Your task to perform on an android device: Open Android settings Image 0: 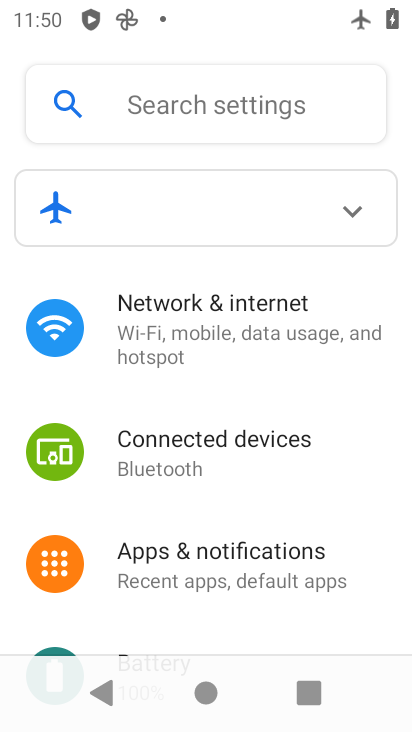
Step 0: drag from (269, 388) to (269, 348)
Your task to perform on an android device: Open Android settings Image 1: 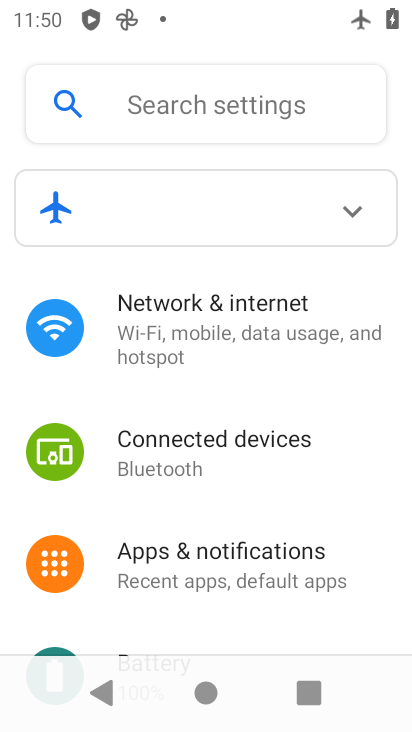
Step 1: drag from (190, 542) to (209, 176)
Your task to perform on an android device: Open Android settings Image 2: 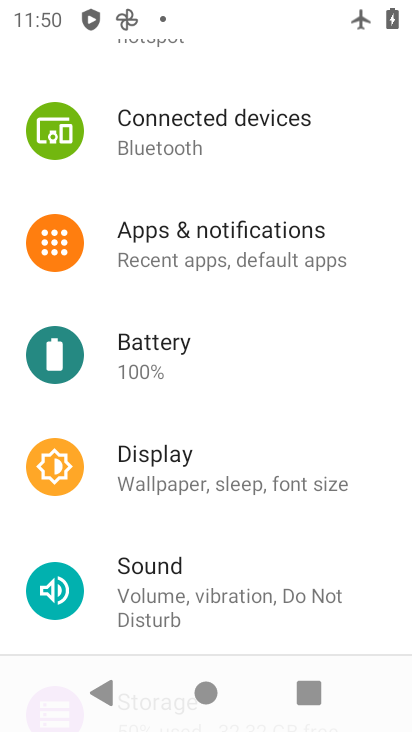
Step 2: drag from (231, 463) to (263, 234)
Your task to perform on an android device: Open Android settings Image 3: 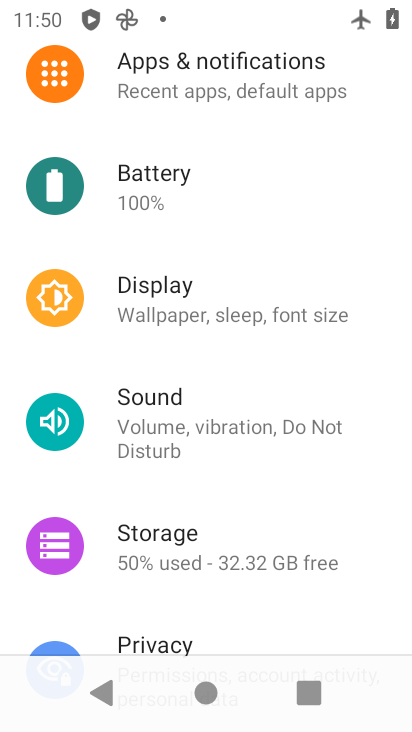
Step 3: drag from (256, 439) to (285, 188)
Your task to perform on an android device: Open Android settings Image 4: 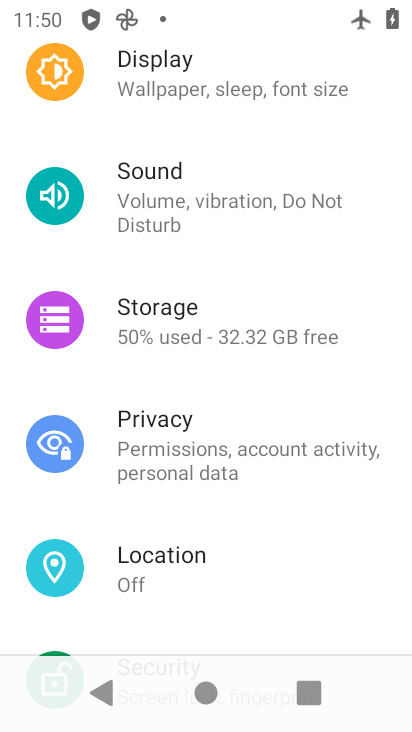
Step 4: drag from (224, 541) to (261, 257)
Your task to perform on an android device: Open Android settings Image 5: 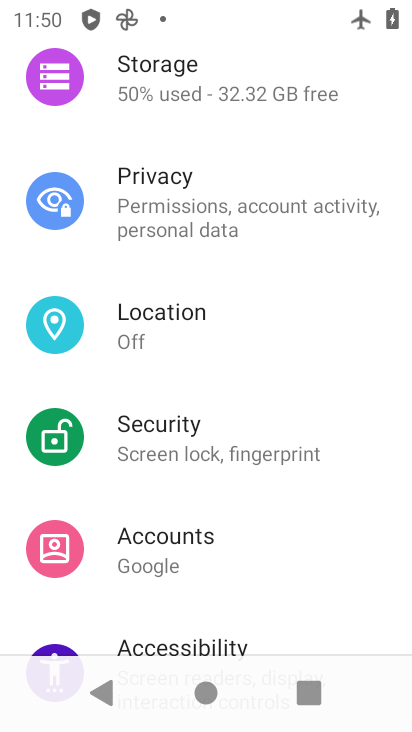
Step 5: drag from (259, 525) to (290, 266)
Your task to perform on an android device: Open Android settings Image 6: 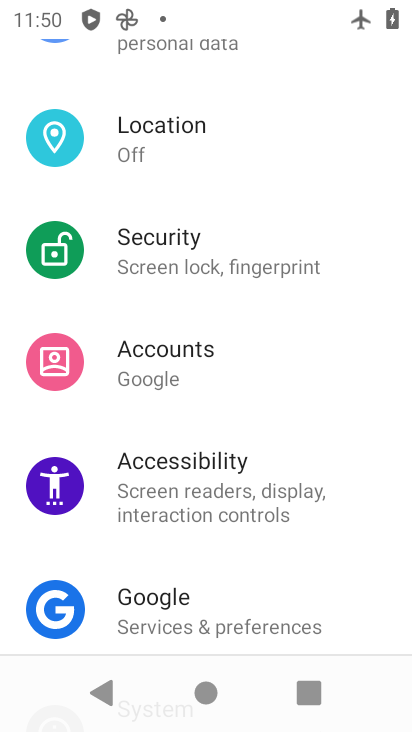
Step 6: drag from (215, 578) to (282, 214)
Your task to perform on an android device: Open Android settings Image 7: 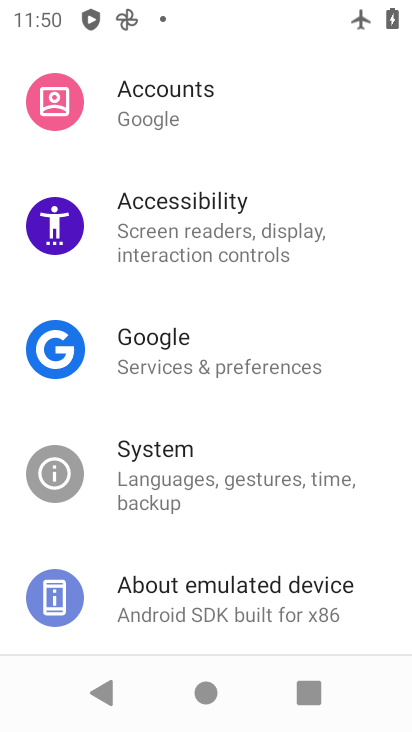
Step 7: click (201, 598)
Your task to perform on an android device: Open Android settings Image 8: 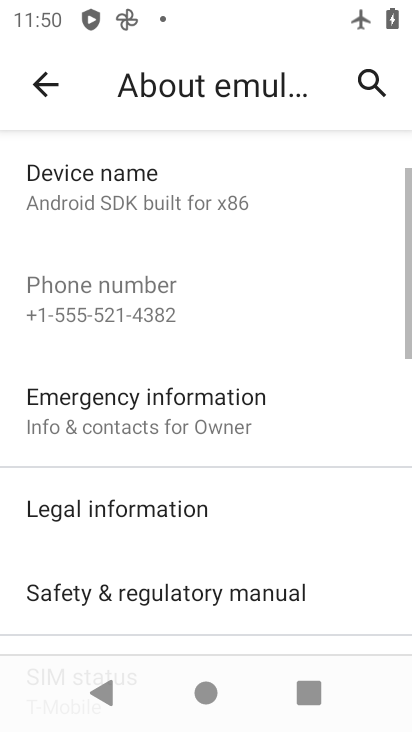
Step 8: drag from (248, 429) to (317, 128)
Your task to perform on an android device: Open Android settings Image 9: 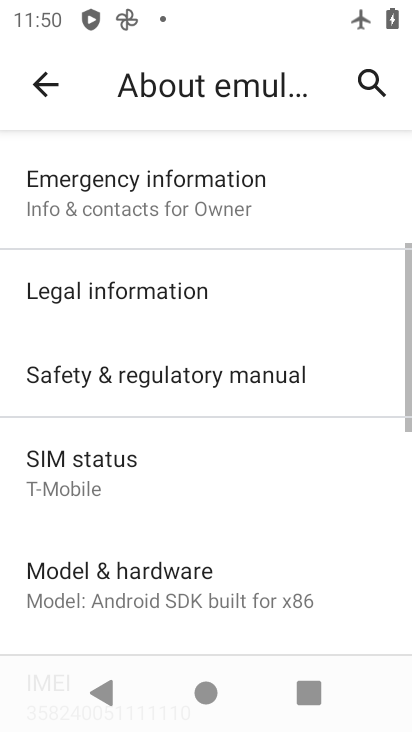
Step 9: drag from (226, 561) to (281, 330)
Your task to perform on an android device: Open Android settings Image 10: 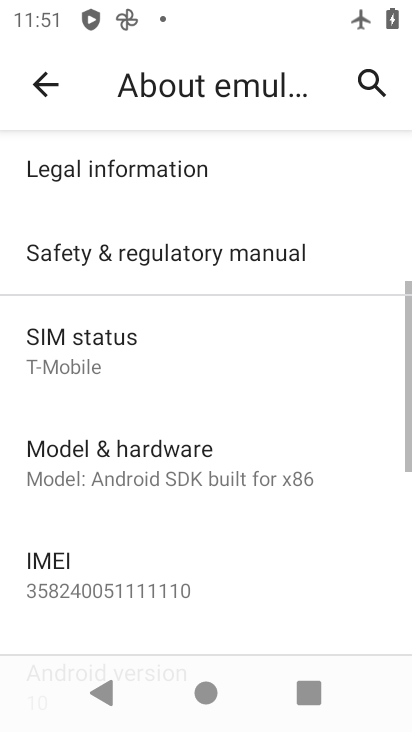
Step 10: drag from (218, 563) to (272, 352)
Your task to perform on an android device: Open Android settings Image 11: 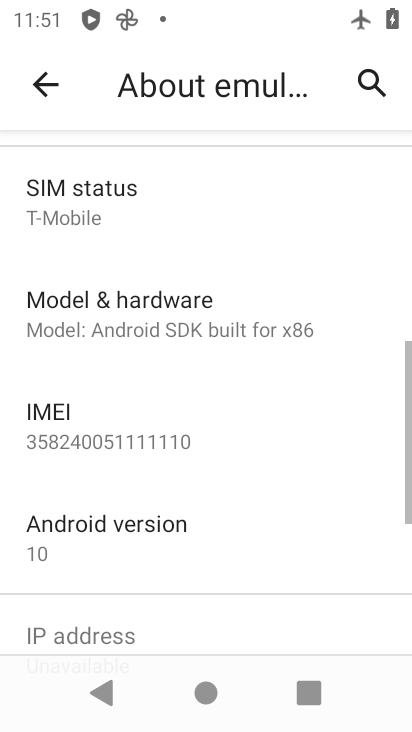
Step 11: click (185, 552)
Your task to perform on an android device: Open Android settings Image 12: 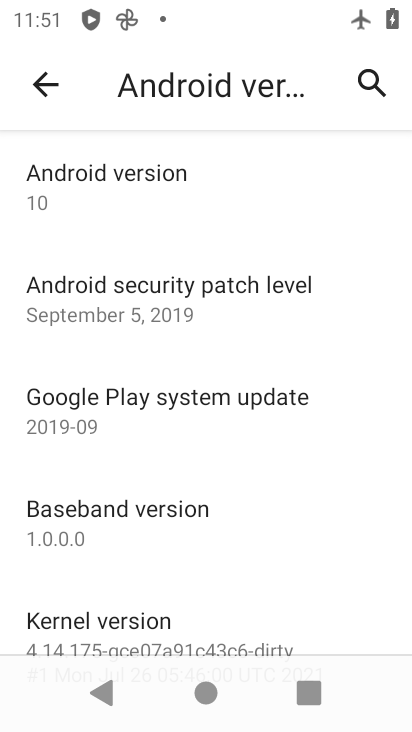
Step 12: click (226, 184)
Your task to perform on an android device: Open Android settings Image 13: 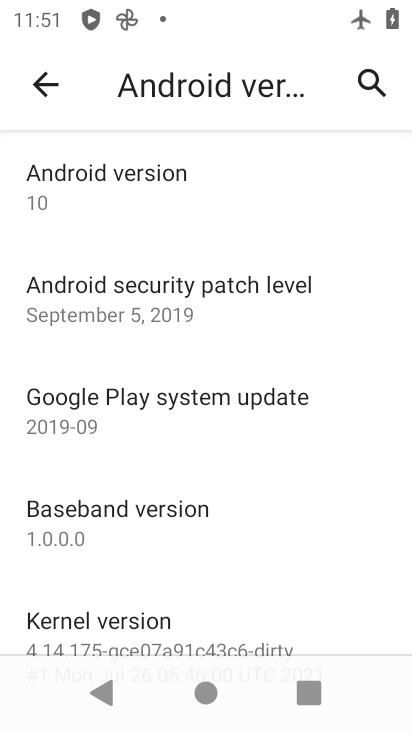
Step 13: task complete